Your task to perform on an android device: Open display settings Image 0: 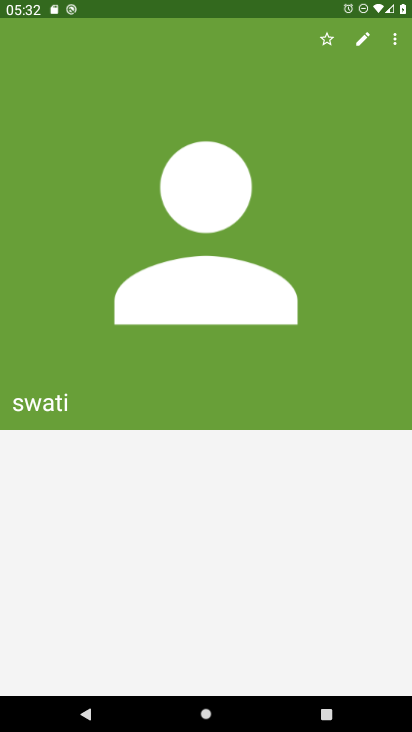
Step 0: drag from (305, 670) to (326, 588)
Your task to perform on an android device: Open display settings Image 1: 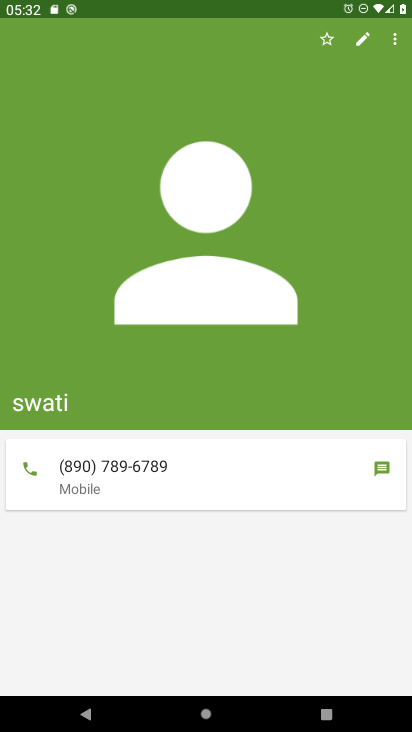
Step 1: press home button
Your task to perform on an android device: Open display settings Image 2: 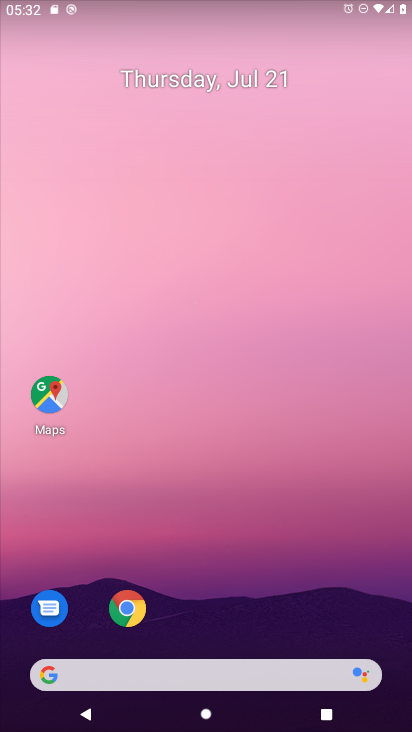
Step 2: drag from (283, 685) to (286, 102)
Your task to perform on an android device: Open display settings Image 3: 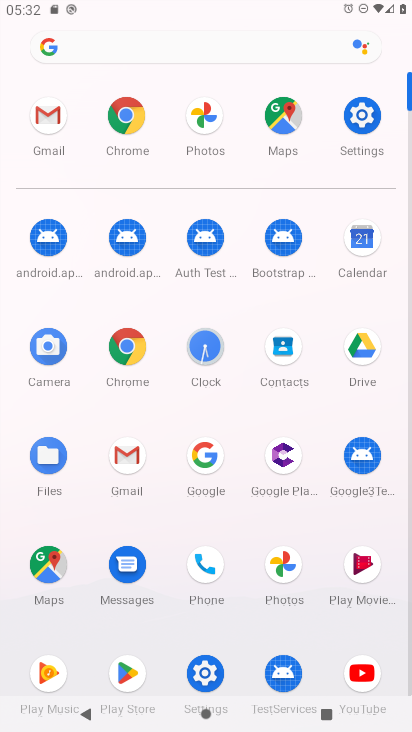
Step 3: click (377, 111)
Your task to perform on an android device: Open display settings Image 4: 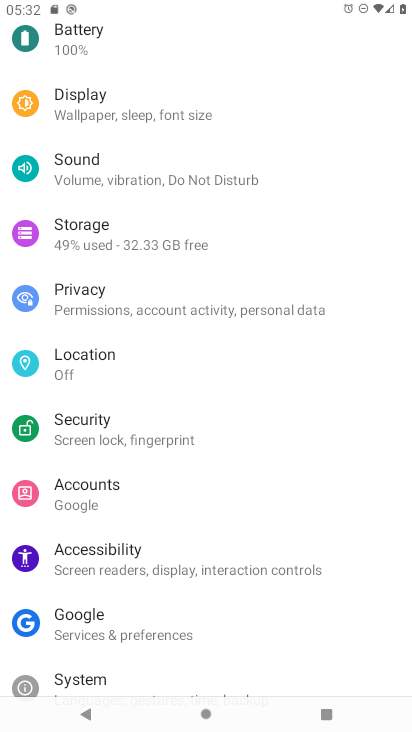
Step 4: click (131, 124)
Your task to perform on an android device: Open display settings Image 5: 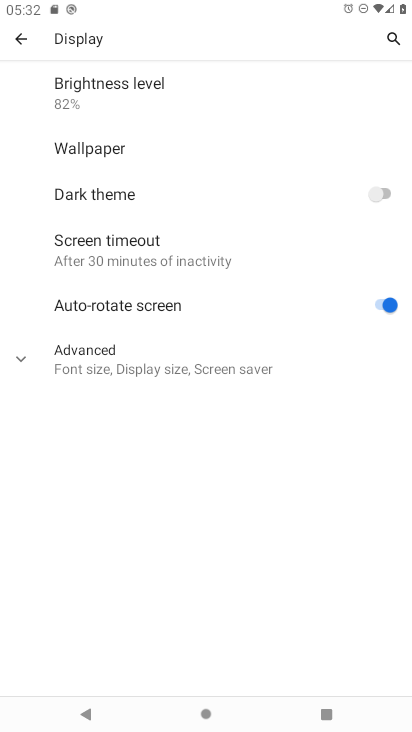
Step 5: task complete